Your task to perform on an android device: Go to accessibility settings Image 0: 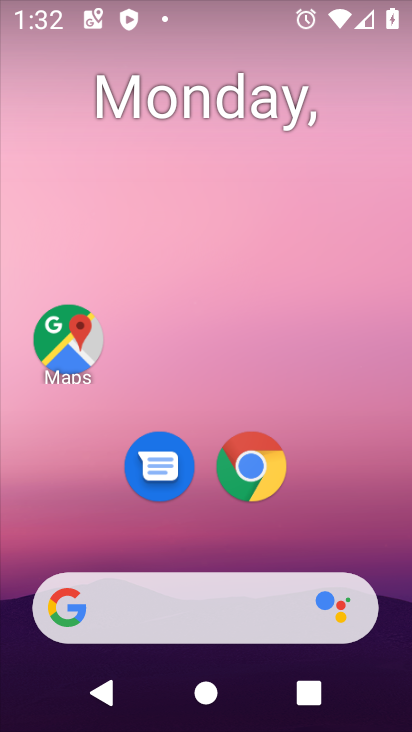
Step 0: drag from (397, 646) to (188, 4)
Your task to perform on an android device: Go to accessibility settings Image 1: 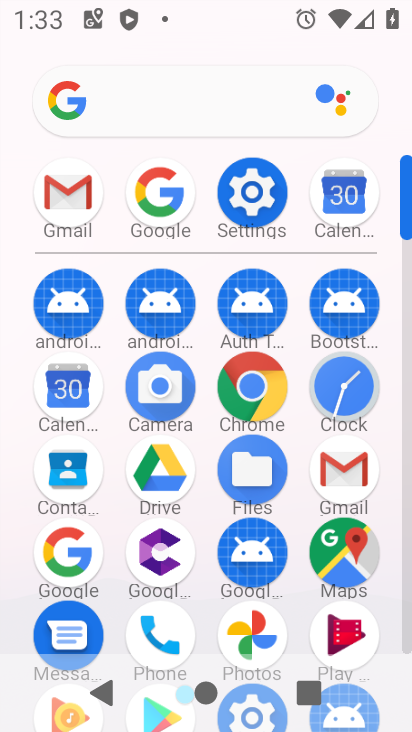
Step 1: click (260, 200)
Your task to perform on an android device: Go to accessibility settings Image 2: 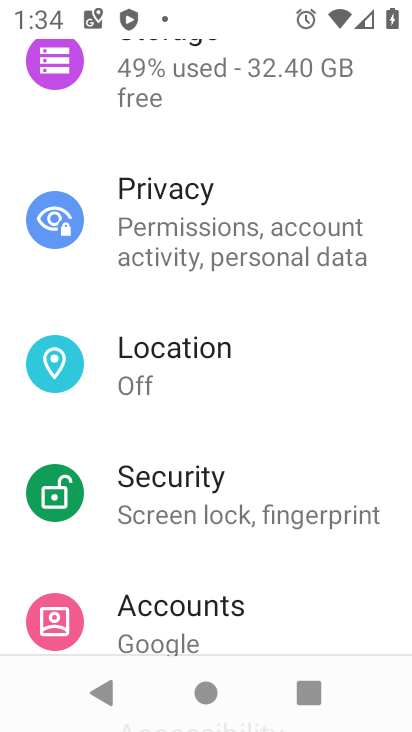
Step 2: drag from (208, 601) to (290, 144)
Your task to perform on an android device: Go to accessibility settings Image 3: 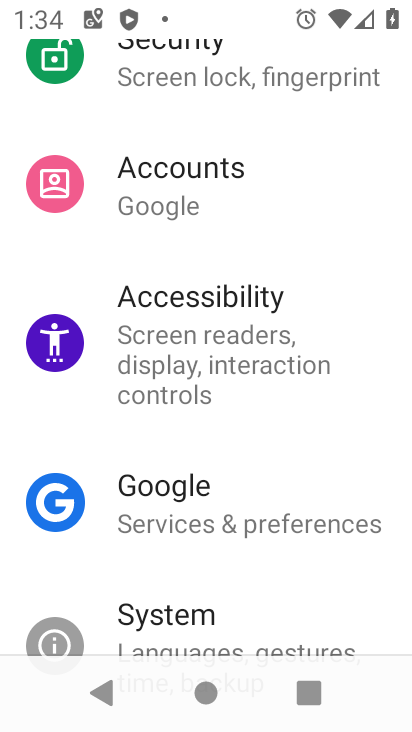
Step 3: click (197, 319)
Your task to perform on an android device: Go to accessibility settings Image 4: 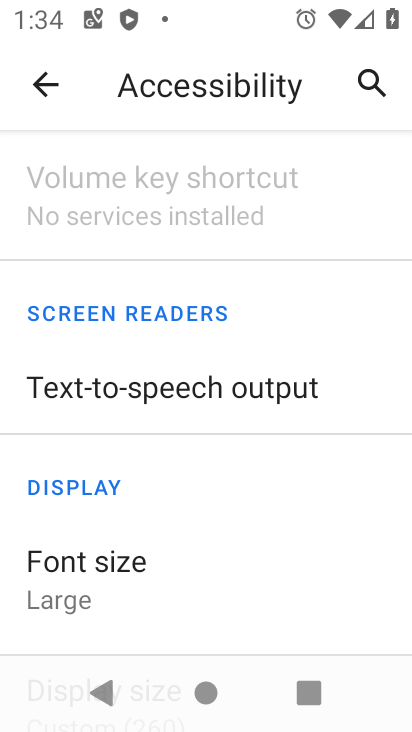
Step 4: task complete